Your task to perform on an android device: Find coffee shops on Maps Image 0: 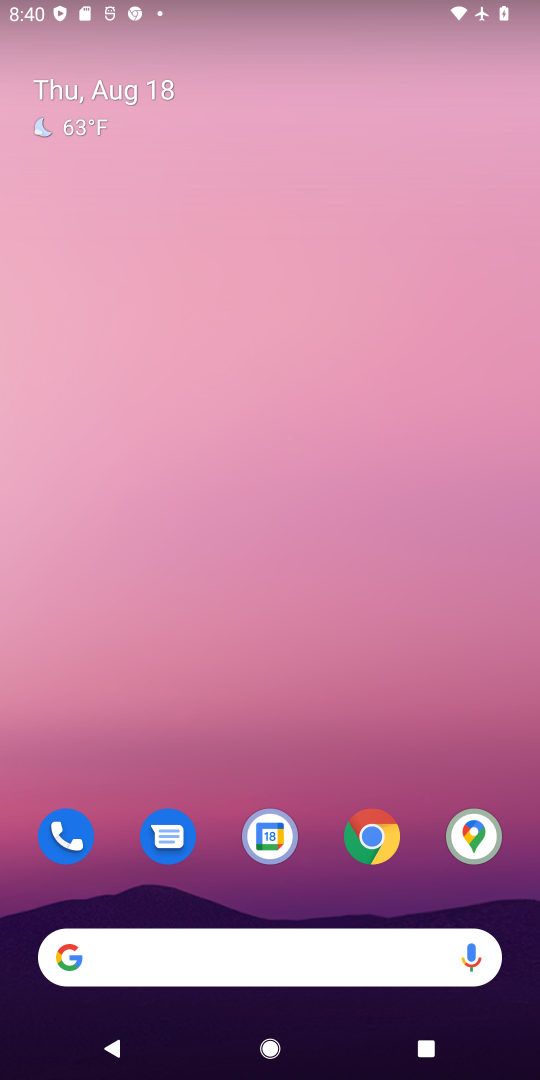
Step 0: drag from (306, 769) to (387, 51)
Your task to perform on an android device: Find coffee shops on Maps Image 1: 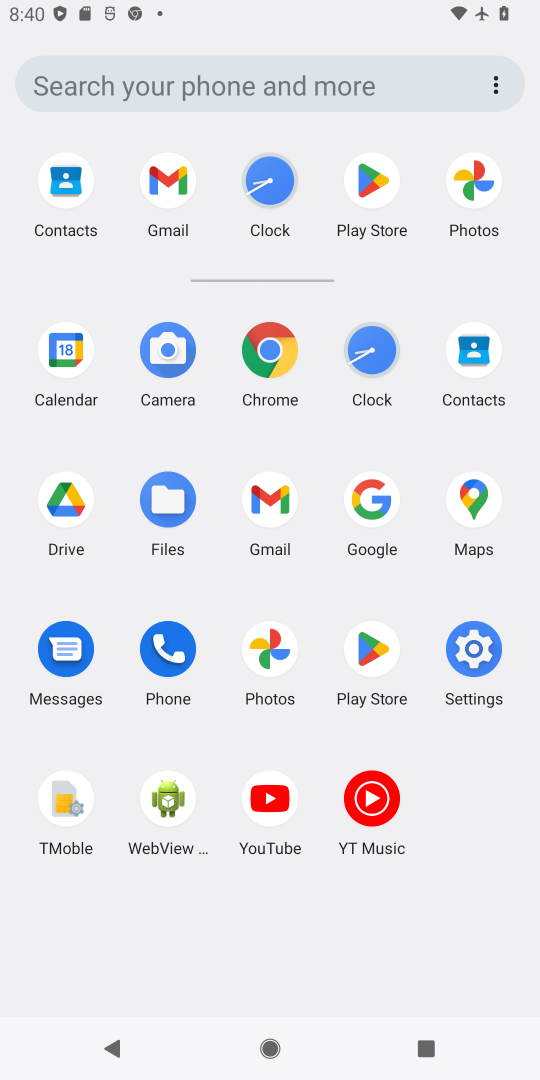
Step 1: click (458, 495)
Your task to perform on an android device: Find coffee shops on Maps Image 2: 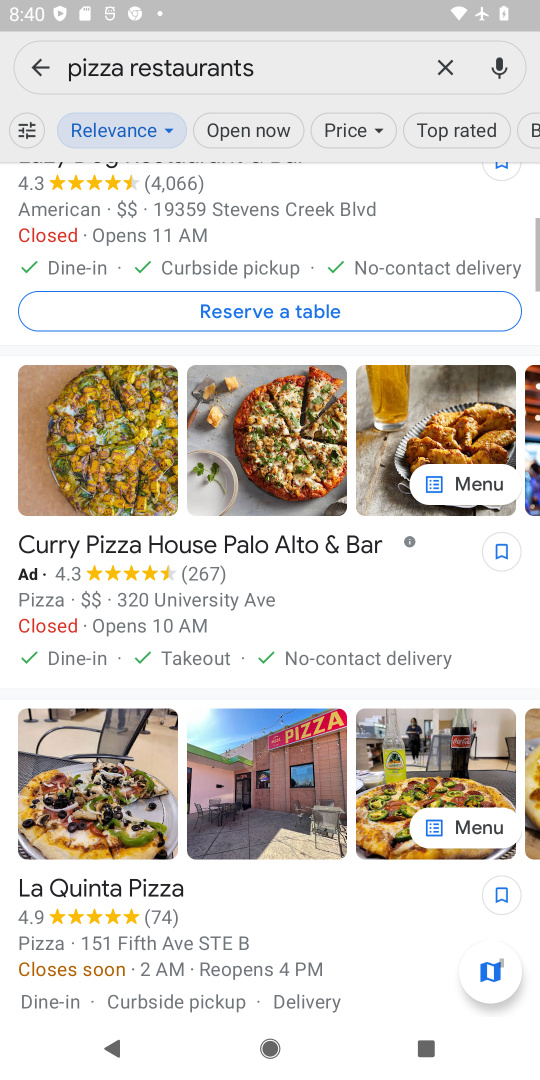
Step 2: click (433, 67)
Your task to perform on an android device: Find coffee shops on Maps Image 3: 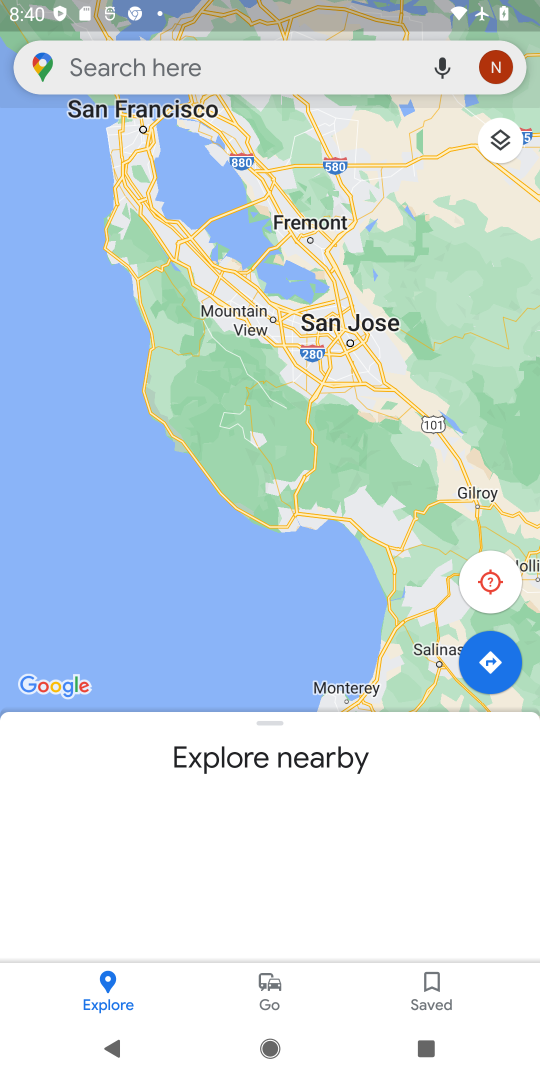
Step 3: click (270, 64)
Your task to perform on an android device: Find coffee shops on Maps Image 4: 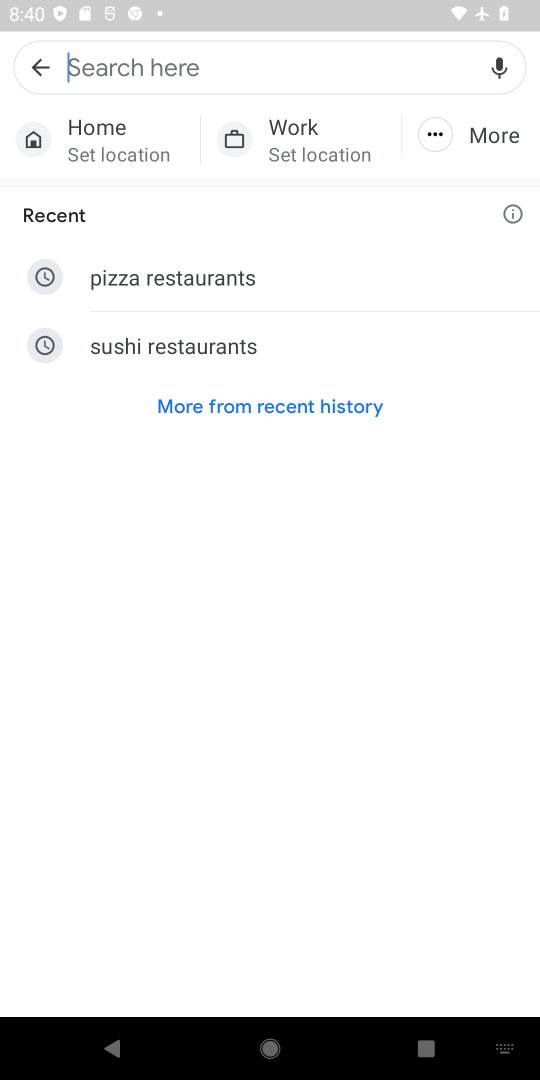
Step 4: type "coffee shops"
Your task to perform on an android device: Find coffee shops on Maps Image 5: 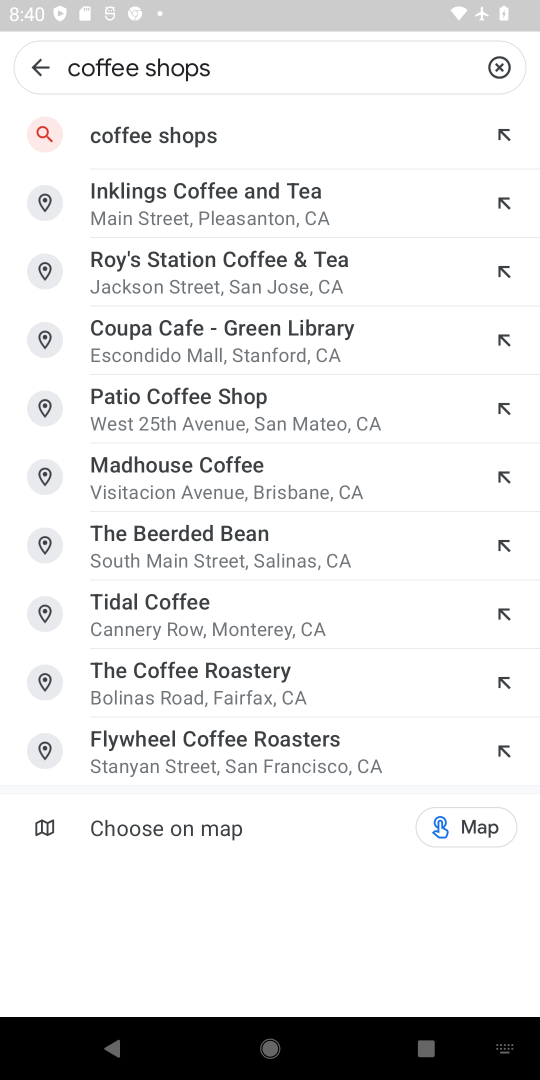
Step 5: click (180, 150)
Your task to perform on an android device: Find coffee shops on Maps Image 6: 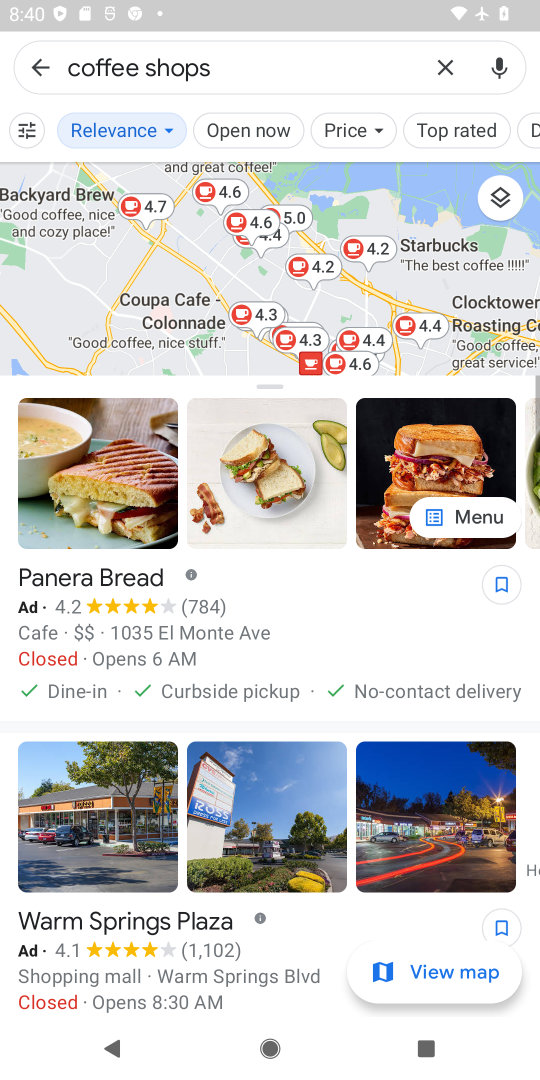
Step 6: task complete